Your task to perform on an android device: Open Chrome and go to settings Image 0: 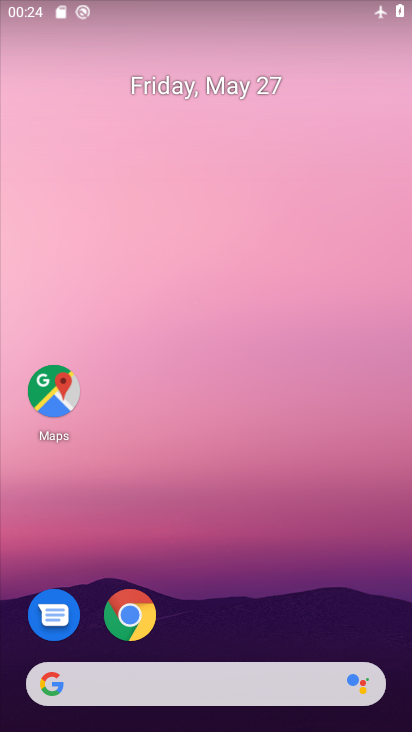
Step 0: drag from (342, 614) to (354, 284)
Your task to perform on an android device: Open Chrome and go to settings Image 1: 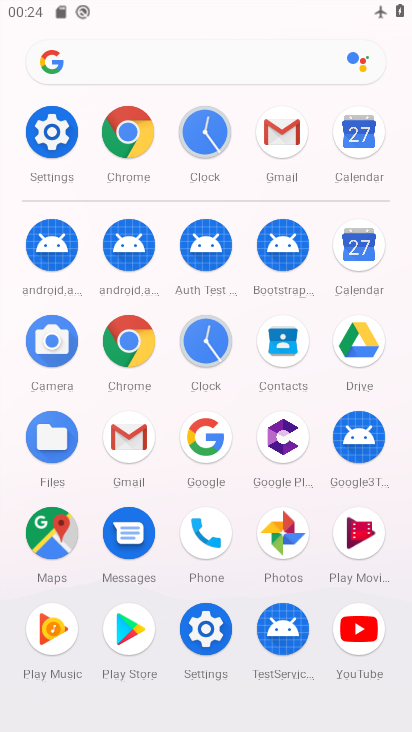
Step 1: click (132, 363)
Your task to perform on an android device: Open Chrome and go to settings Image 2: 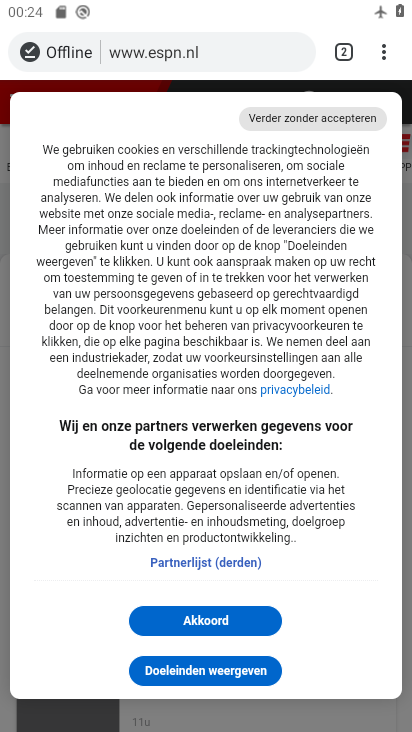
Step 2: click (383, 56)
Your task to perform on an android device: Open Chrome and go to settings Image 3: 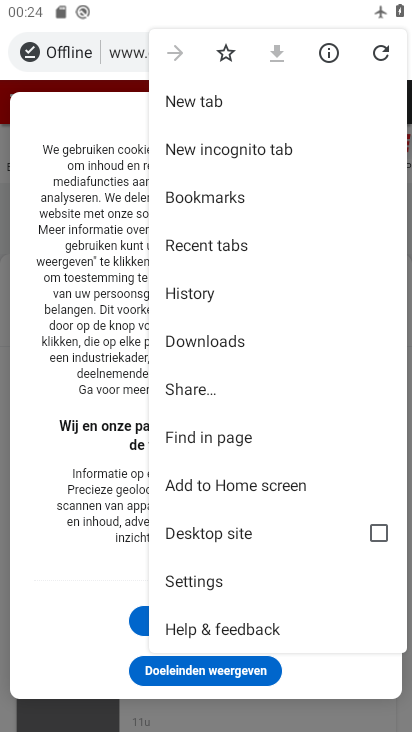
Step 3: click (204, 589)
Your task to perform on an android device: Open Chrome and go to settings Image 4: 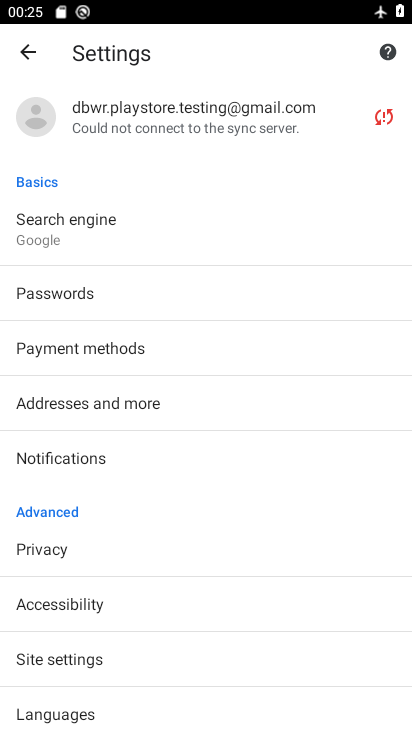
Step 4: task complete